Your task to perform on an android device: change the clock display to digital Image 0: 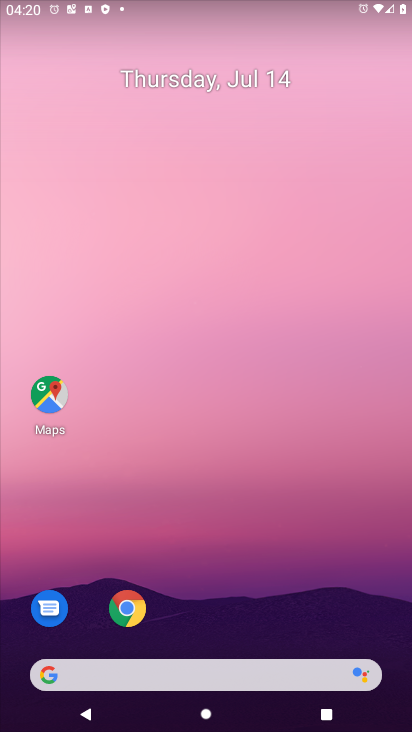
Step 0: drag from (383, 640) to (316, 120)
Your task to perform on an android device: change the clock display to digital Image 1: 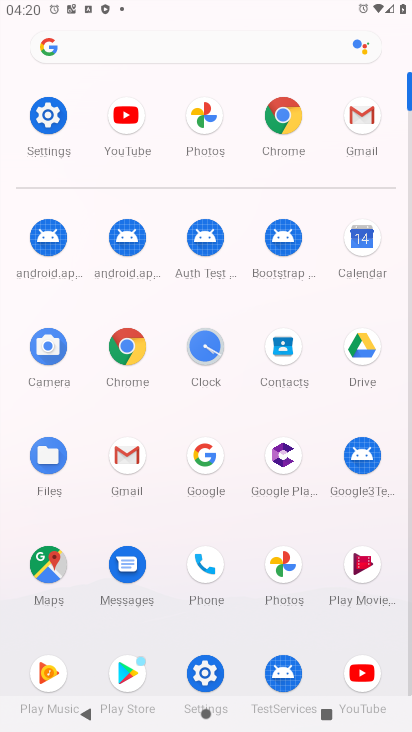
Step 1: click (204, 345)
Your task to perform on an android device: change the clock display to digital Image 2: 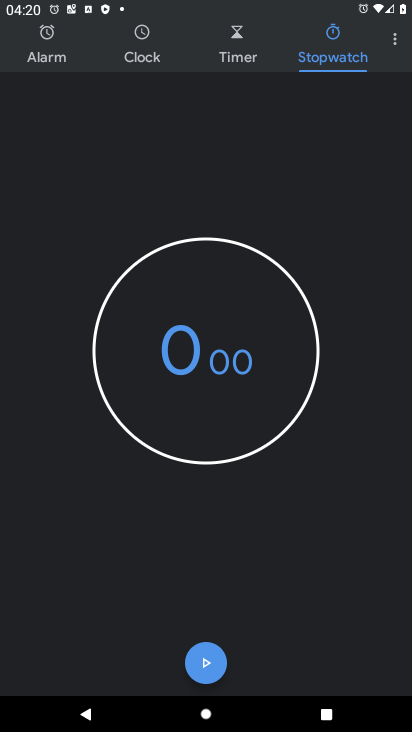
Step 2: click (396, 44)
Your task to perform on an android device: change the clock display to digital Image 3: 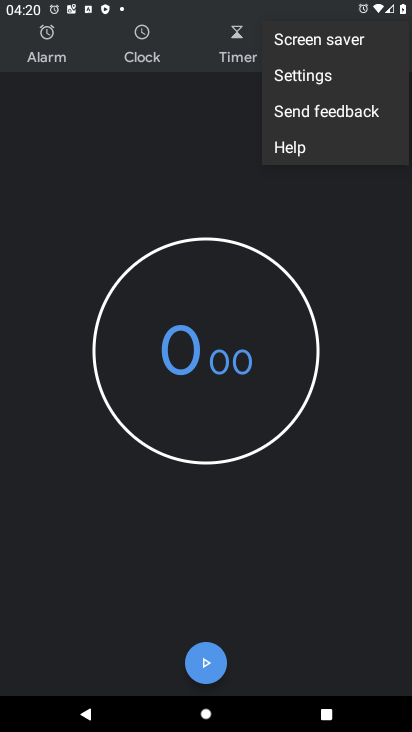
Step 3: click (292, 75)
Your task to perform on an android device: change the clock display to digital Image 4: 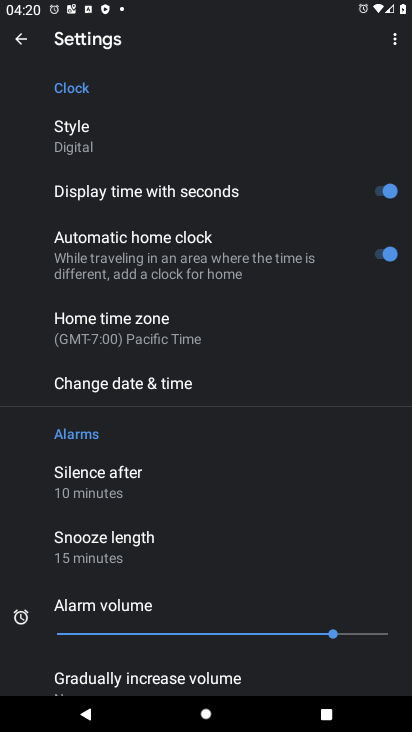
Step 4: task complete